Your task to perform on an android device: turn on wifi Image 0: 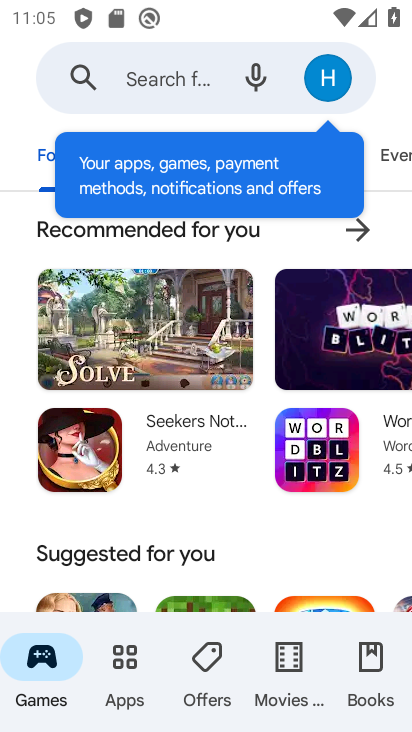
Step 0: press home button
Your task to perform on an android device: turn on wifi Image 1: 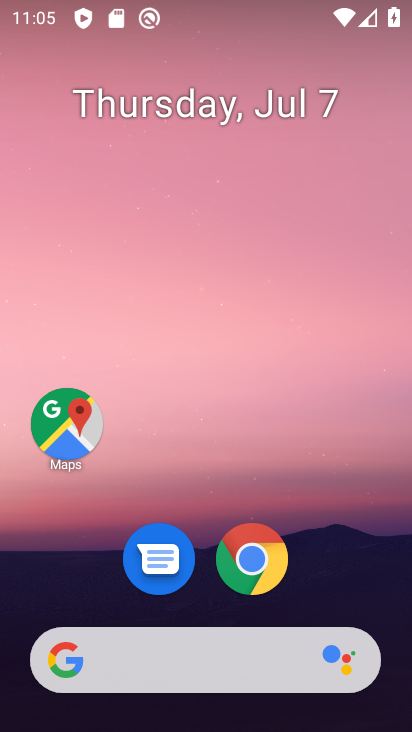
Step 1: drag from (357, 567) to (318, 117)
Your task to perform on an android device: turn on wifi Image 2: 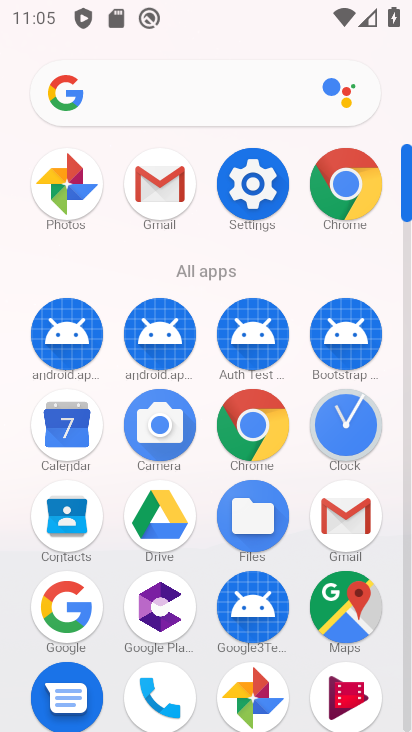
Step 2: click (263, 201)
Your task to perform on an android device: turn on wifi Image 3: 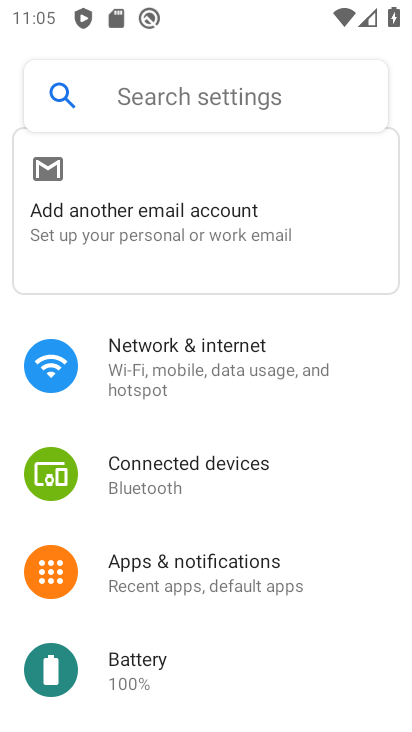
Step 3: drag from (374, 494) to (358, 370)
Your task to perform on an android device: turn on wifi Image 4: 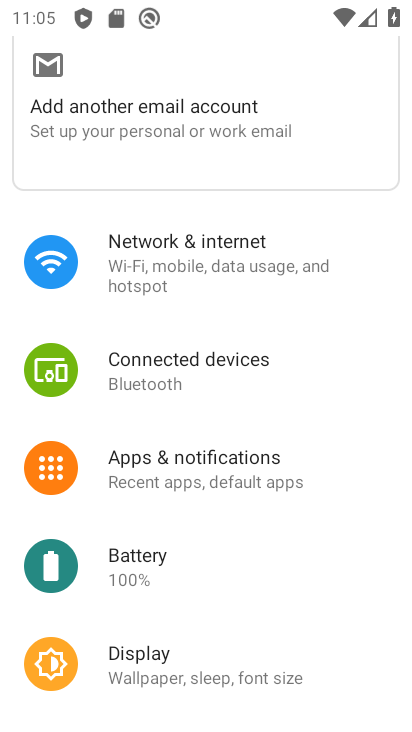
Step 4: drag from (359, 529) to (358, 370)
Your task to perform on an android device: turn on wifi Image 5: 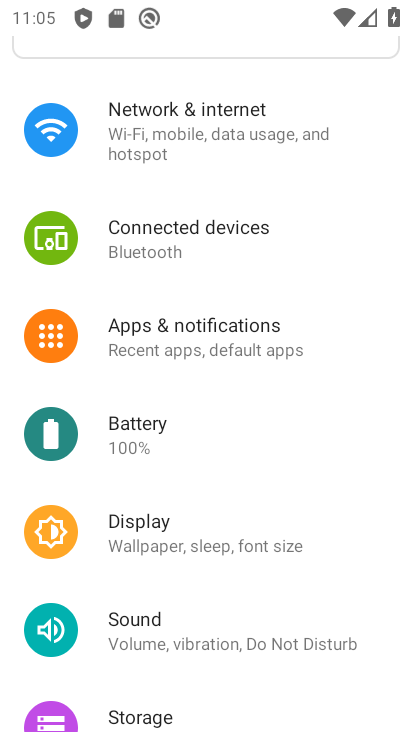
Step 5: drag from (366, 482) to (340, 350)
Your task to perform on an android device: turn on wifi Image 6: 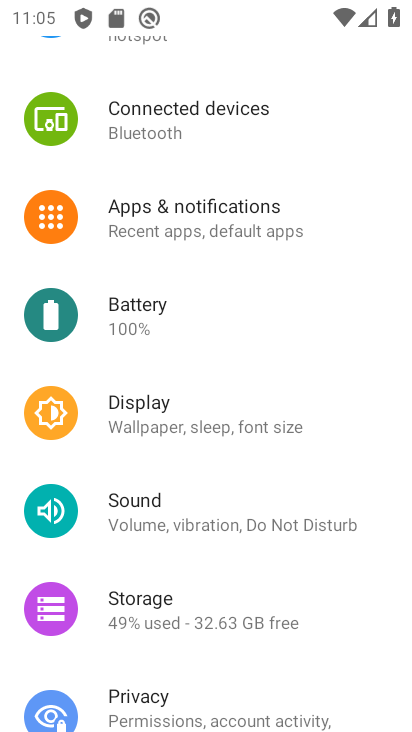
Step 6: drag from (352, 505) to (353, 371)
Your task to perform on an android device: turn on wifi Image 7: 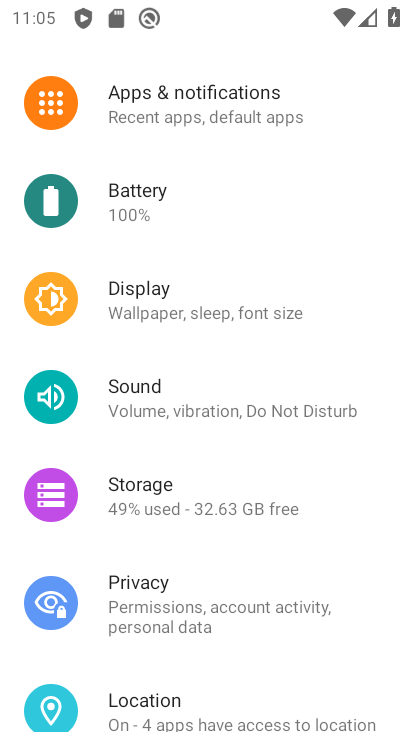
Step 7: drag from (354, 542) to (345, 386)
Your task to perform on an android device: turn on wifi Image 8: 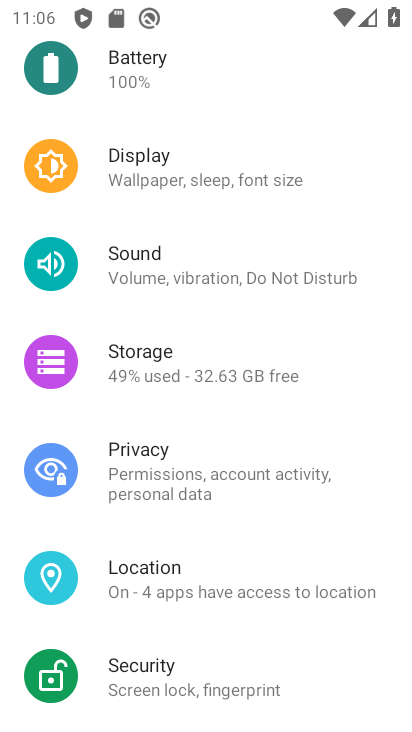
Step 8: drag from (354, 461) to (360, 288)
Your task to perform on an android device: turn on wifi Image 9: 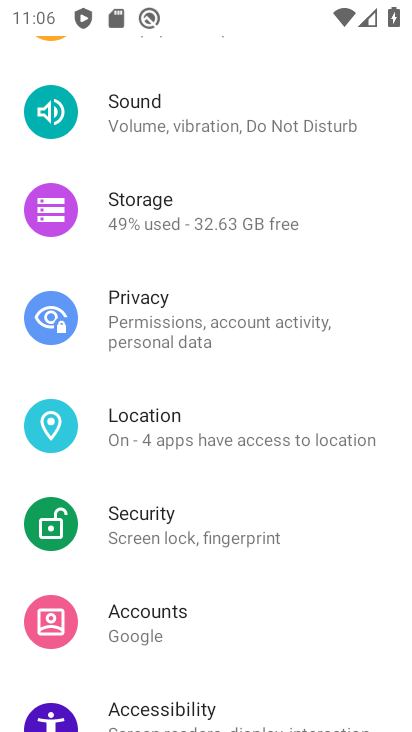
Step 9: drag from (360, 554) to (361, 362)
Your task to perform on an android device: turn on wifi Image 10: 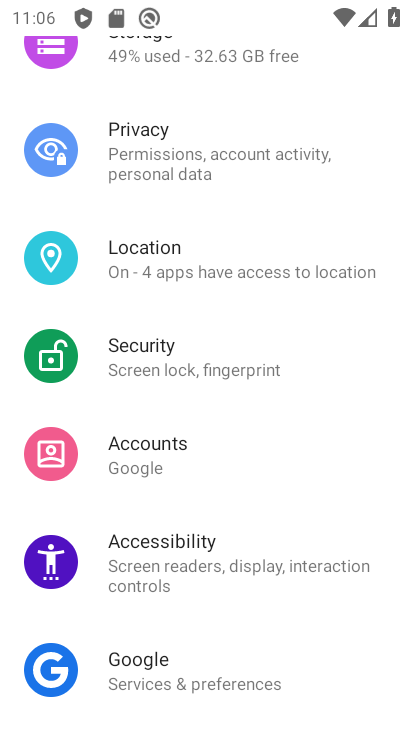
Step 10: drag from (367, 490) to (363, 360)
Your task to perform on an android device: turn on wifi Image 11: 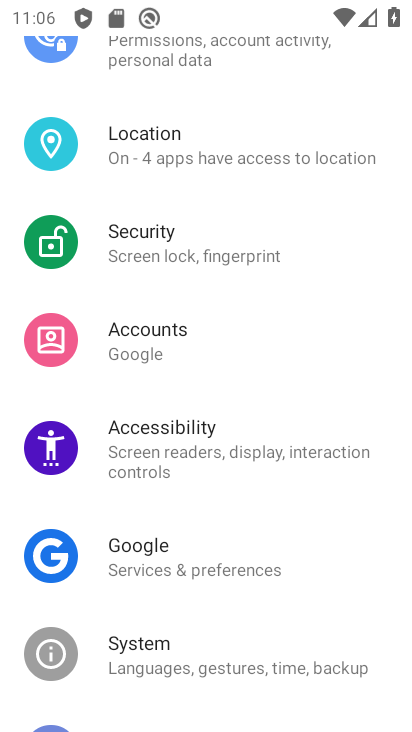
Step 11: drag from (361, 242) to (344, 410)
Your task to perform on an android device: turn on wifi Image 12: 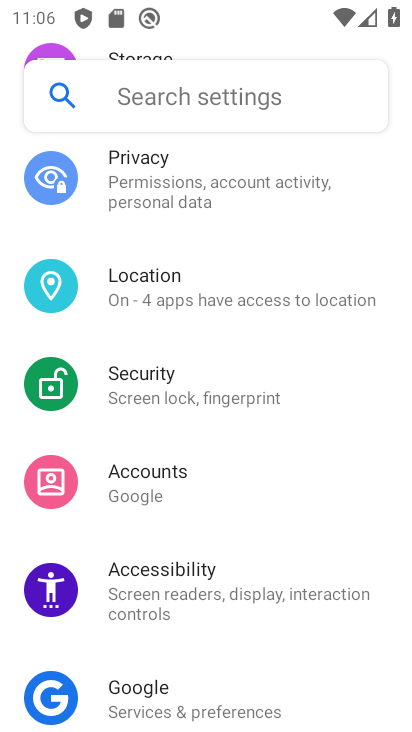
Step 12: drag from (361, 218) to (363, 335)
Your task to perform on an android device: turn on wifi Image 13: 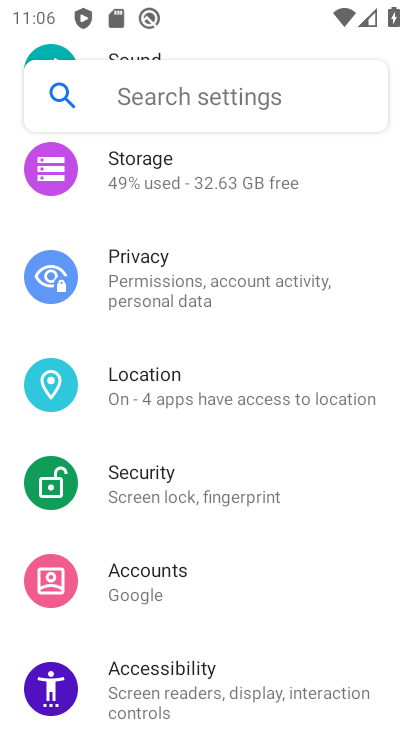
Step 13: drag from (354, 213) to (354, 359)
Your task to perform on an android device: turn on wifi Image 14: 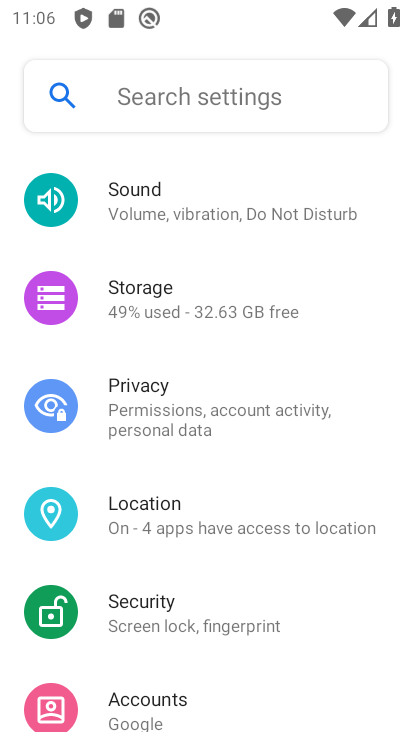
Step 14: drag from (375, 201) to (379, 351)
Your task to perform on an android device: turn on wifi Image 15: 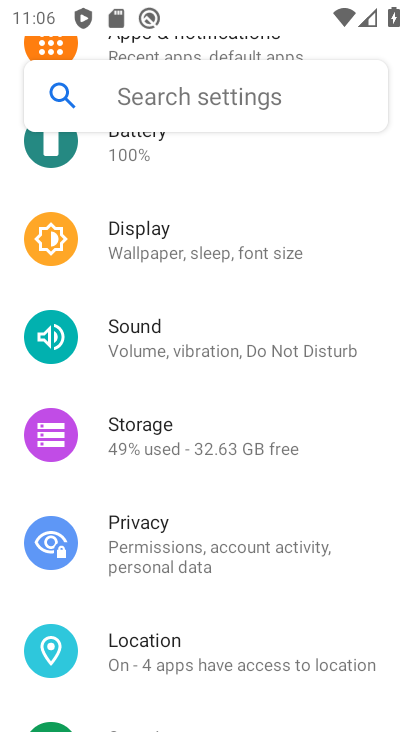
Step 15: drag from (375, 190) to (372, 334)
Your task to perform on an android device: turn on wifi Image 16: 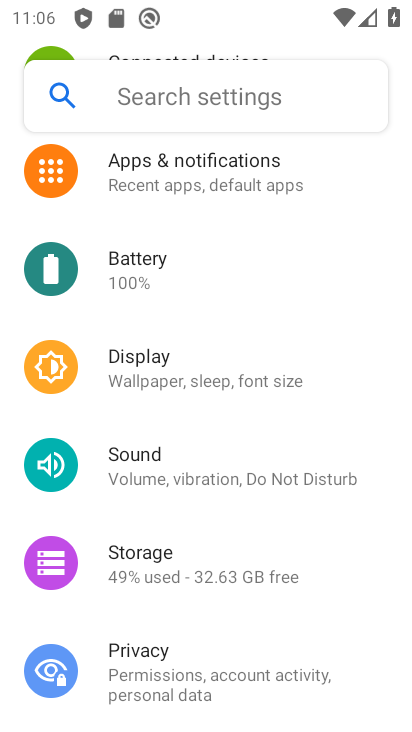
Step 16: drag from (365, 176) to (357, 338)
Your task to perform on an android device: turn on wifi Image 17: 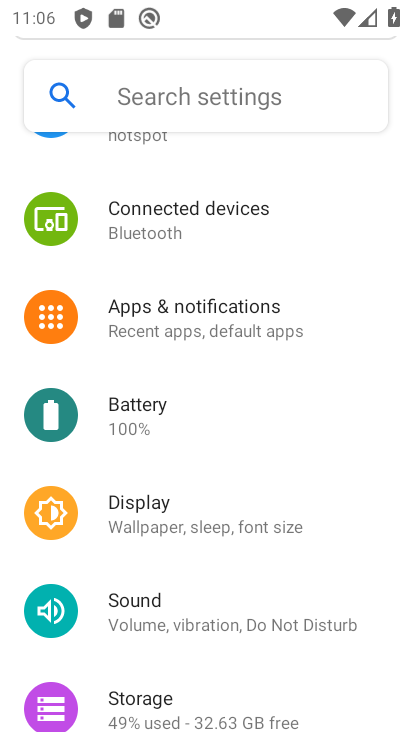
Step 17: drag from (348, 186) to (344, 340)
Your task to perform on an android device: turn on wifi Image 18: 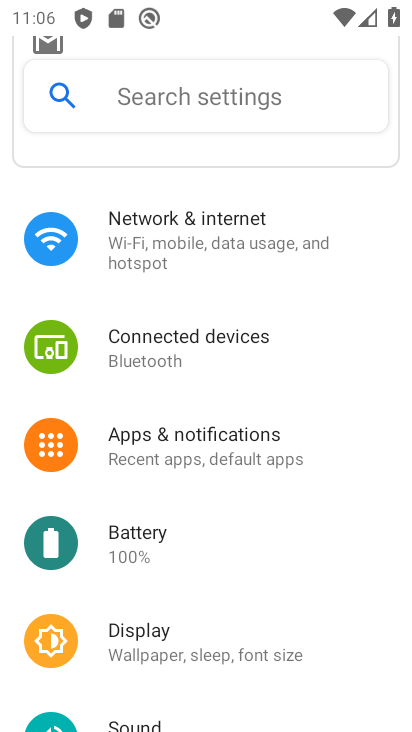
Step 18: drag from (362, 217) to (309, 240)
Your task to perform on an android device: turn on wifi Image 19: 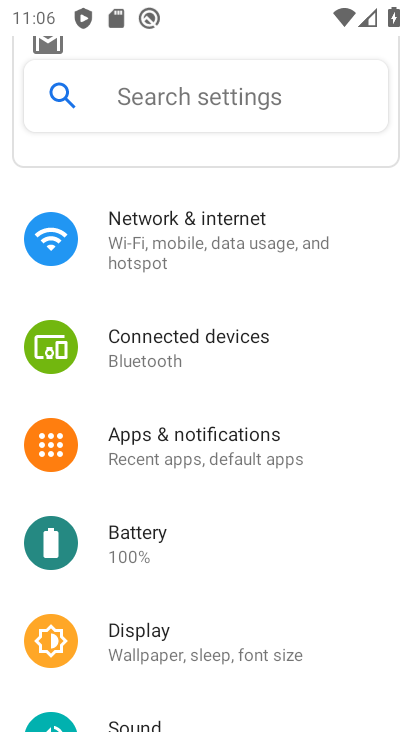
Step 19: click (249, 240)
Your task to perform on an android device: turn on wifi Image 20: 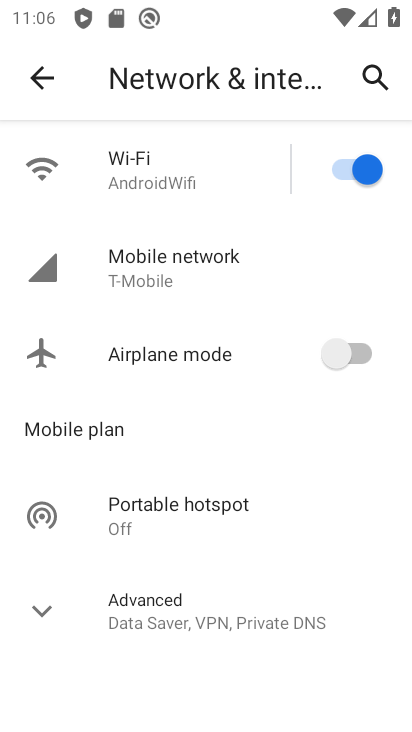
Step 20: task complete